Your task to perform on an android device: Find coffee shops on Maps Image 0: 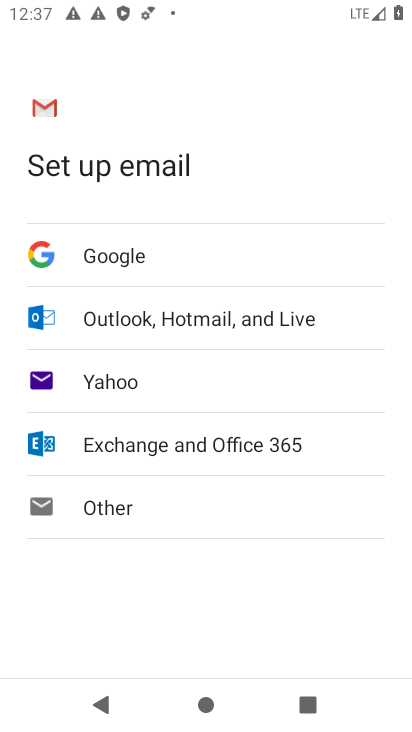
Step 0: press home button
Your task to perform on an android device: Find coffee shops on Maps Image 1: 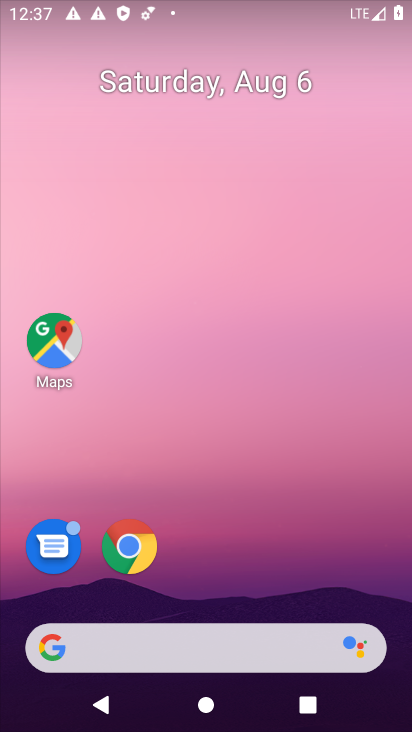
Step 1: click (57, 339)
Your task to perform on an android device: Find coffee shops on Maps Image 2: 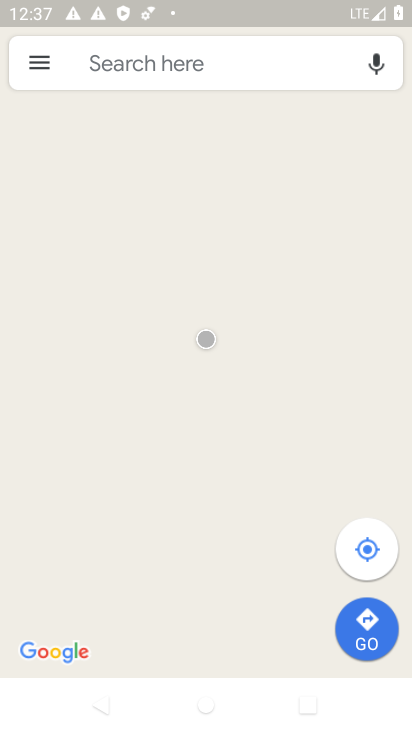
Step 2: click (129, 68)
Your task to perform on an android device: Find coffee shops on Maps Image 3: 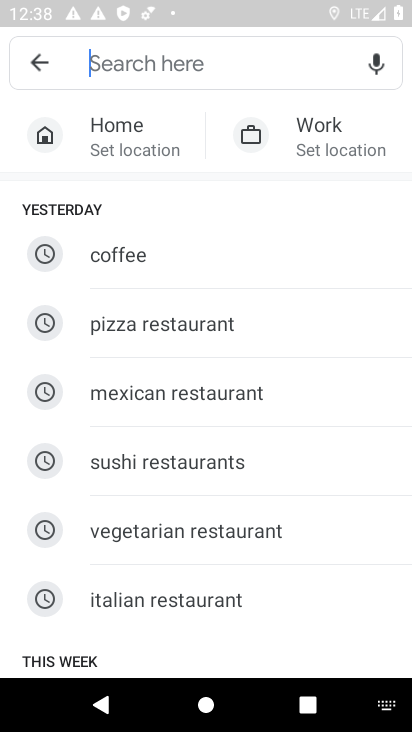
Step 3: type "coffee shops"
Your task to perform on an android device: Find coffee shops on Maps Image 4: 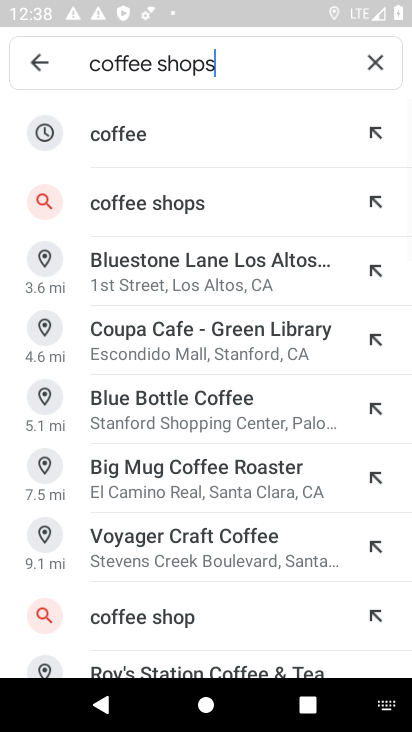
Step 4: click (152, 206)
Your task to perform on an android device: Find coffee shops on Maps Image 5: 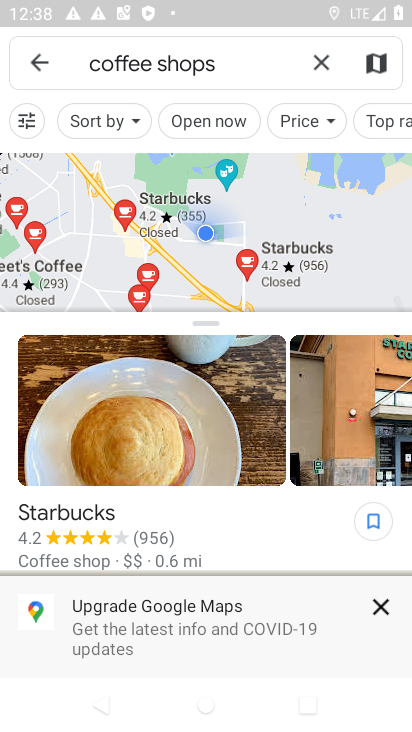
Step 5: task complete